Your task to perform on an android device: turn on javascript in the chrome app Image 0: 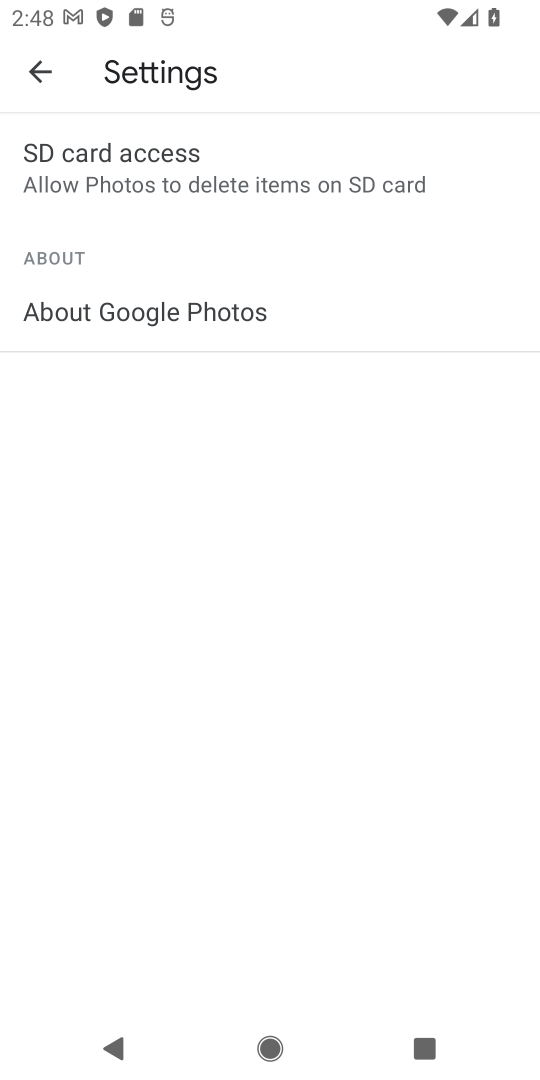
Step 0: press home button
Your task to perform on an android device: turn on javascript in the chrome app Image 1: 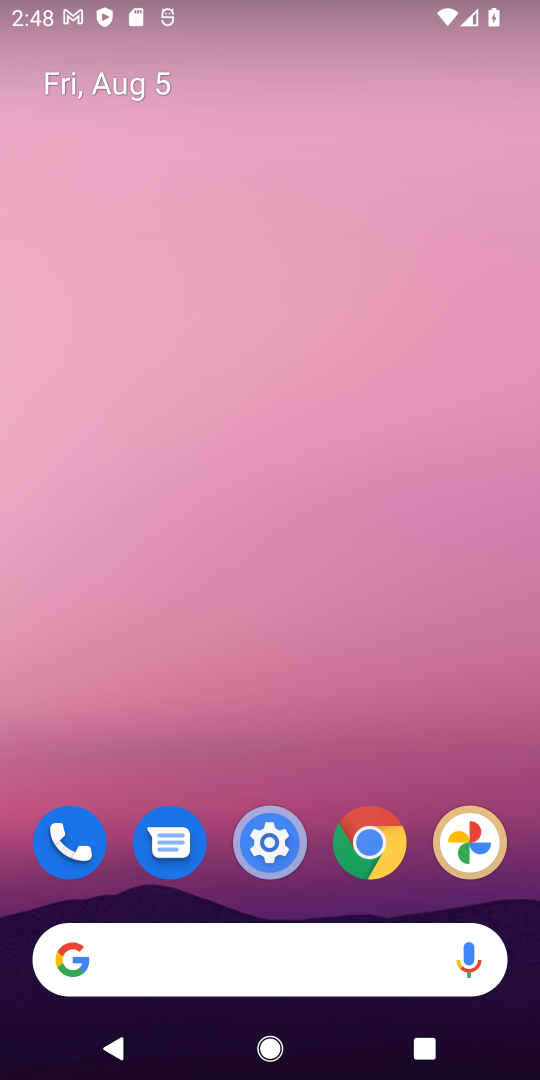
Step 1: click (277, 843)
Your task to perform on an android device: turn on javascript in the chrome app Image 2: 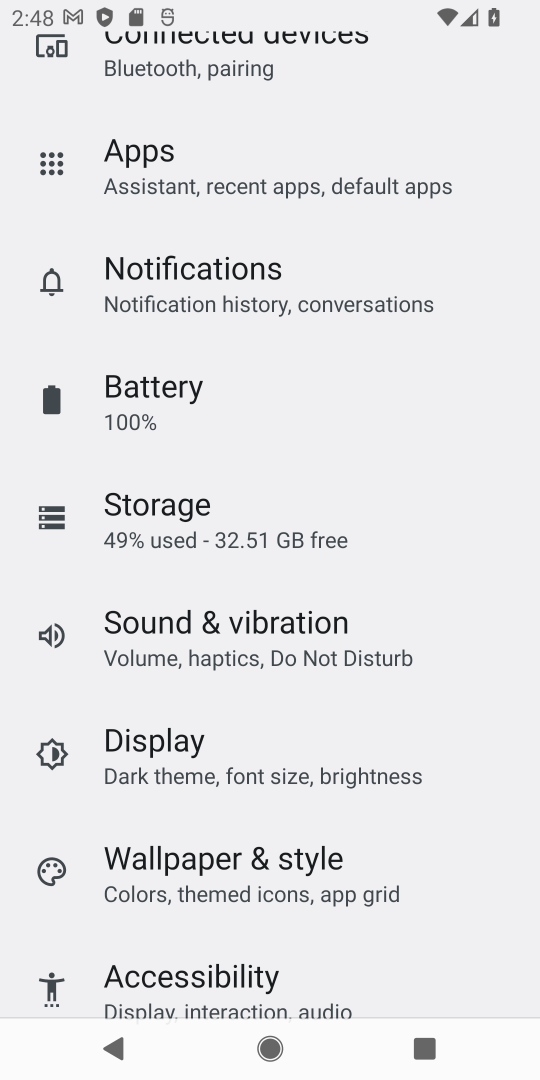
Step 2: press home button
Your task to perform on an android device: turn on javascript in the chrome app Image 3: 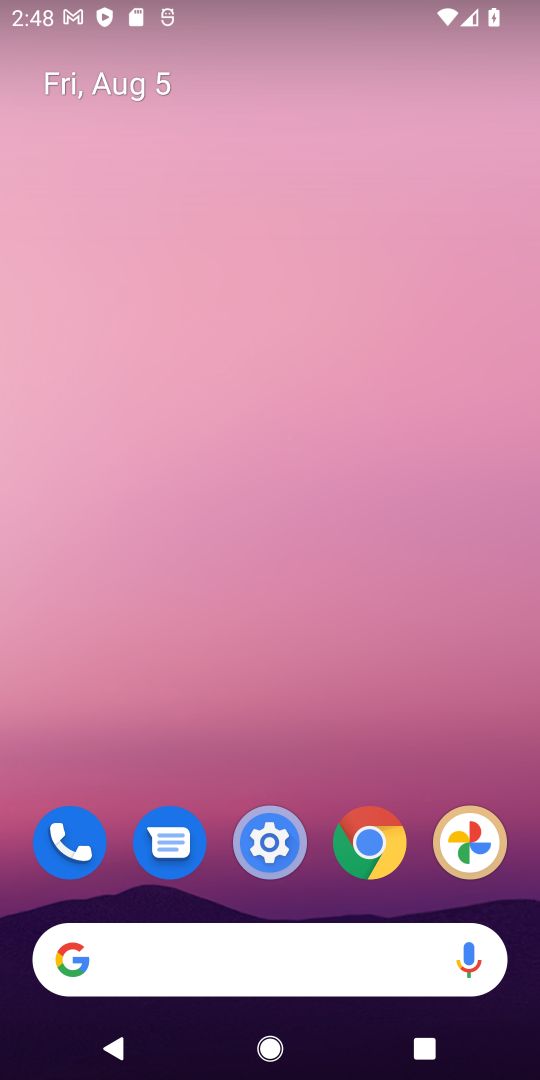
Step 3: click (374, 841)
Your task to perform on an android device: turn on javascript in the chrome app Image 4: 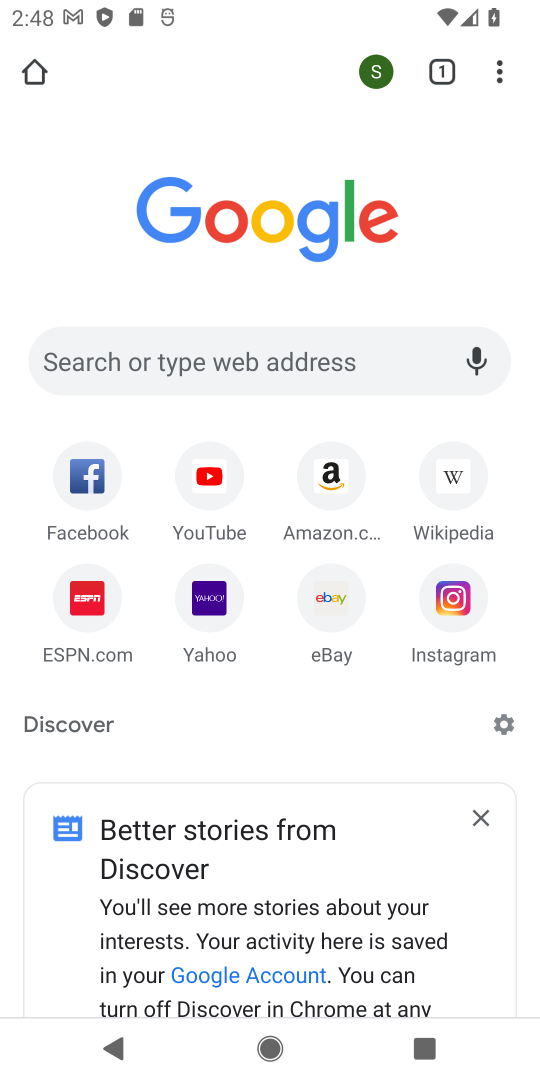
Step 4: click (501, 77)
Your task to perform on an android device: turn on javascript in the chrome app Image 5: 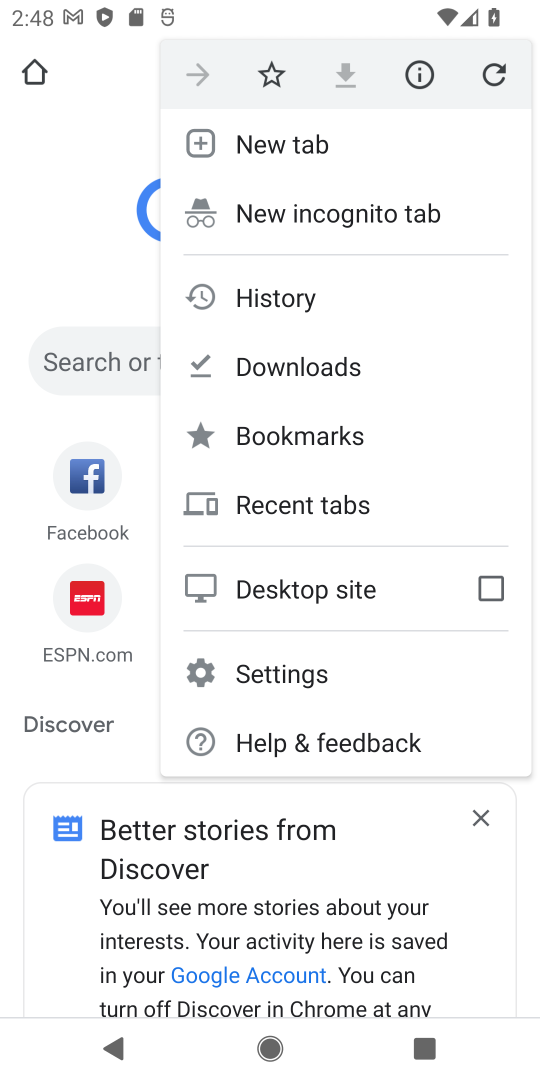
Step 5: click (300, 667)
Your task to perform on an android device: turn on javascript in the chrome app Image 6: 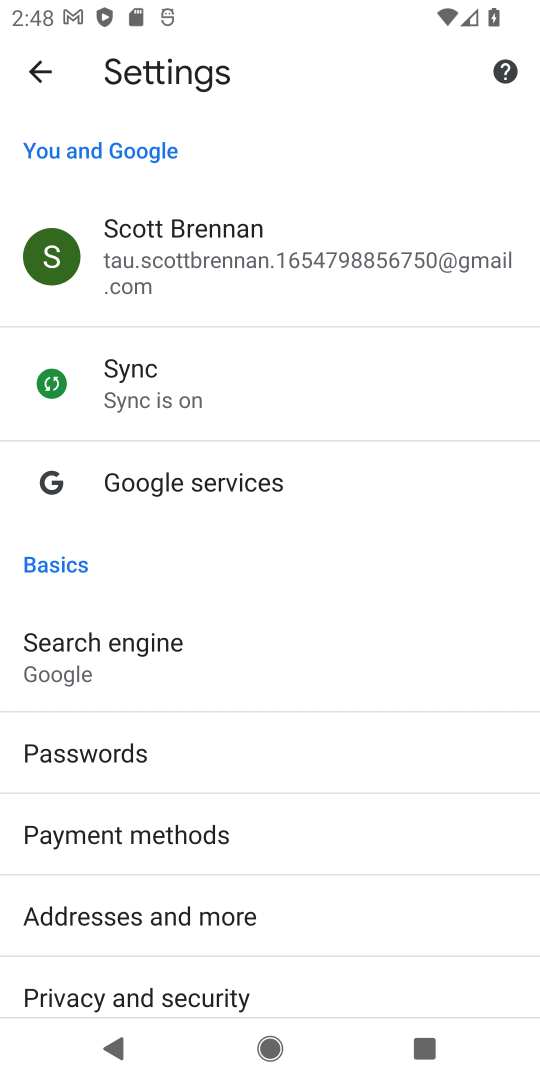
Step 6: drag from (330, 741) to (320, 169)
Your task to perform on an android device: turn on javascript in the chrome app Image 7: 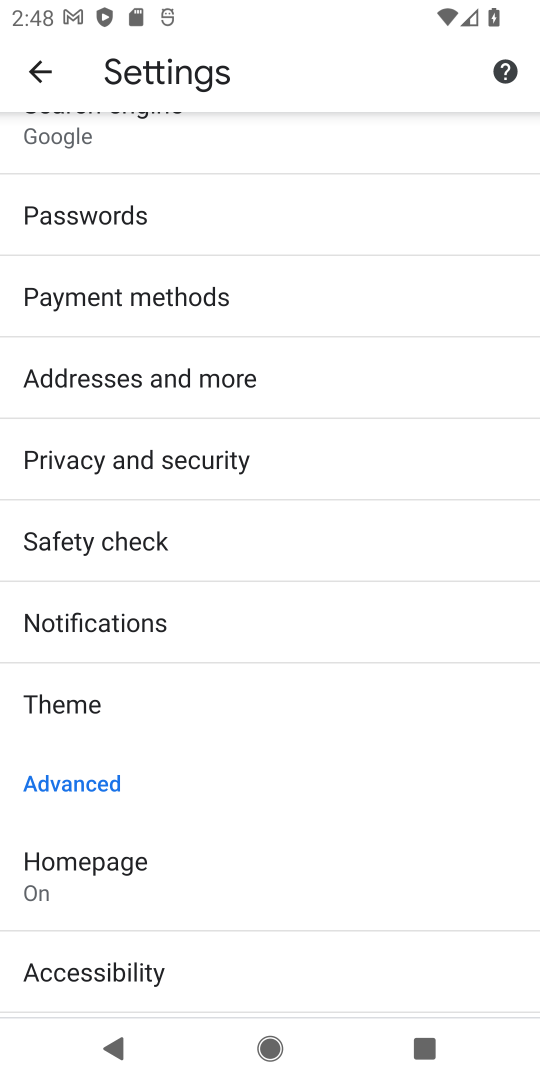
Step 7: drag from (277, 748) to (237, 210)
Your task to perform on an android device: turn on javascript in the chrome app Image 8: 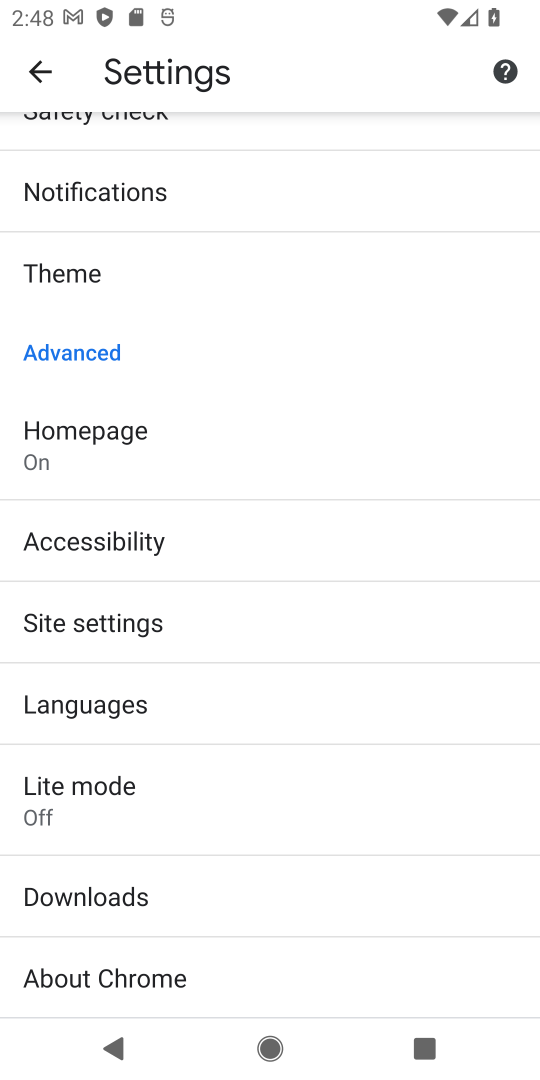
Step 8: click (160, 620)
Your task to perform on an android device: turn on javascript in the chrome app Image 9: 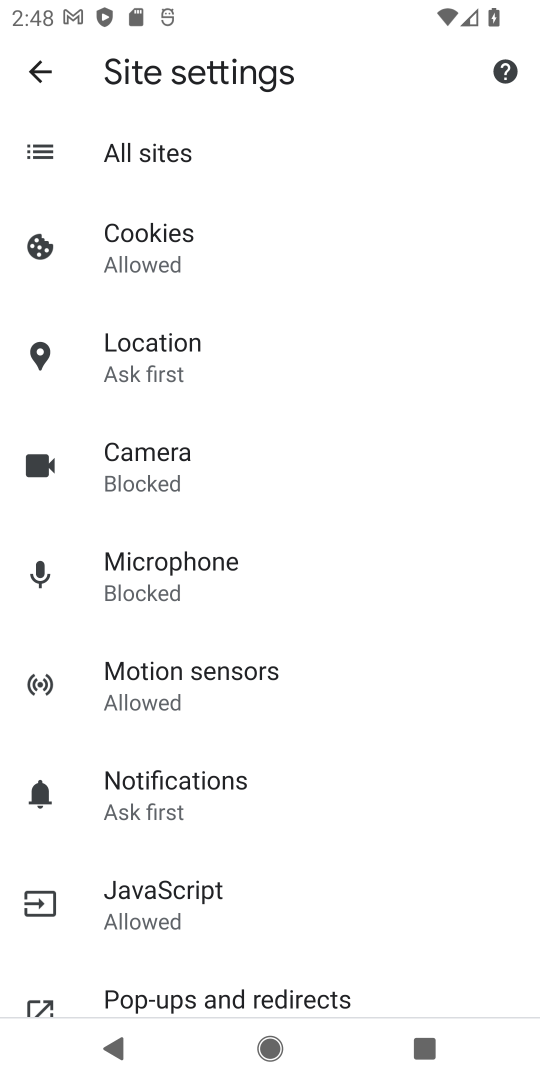
Step 9: click (178, 904)
Your task to perform on an android device: turn on javascript in the chrome app Image 10: 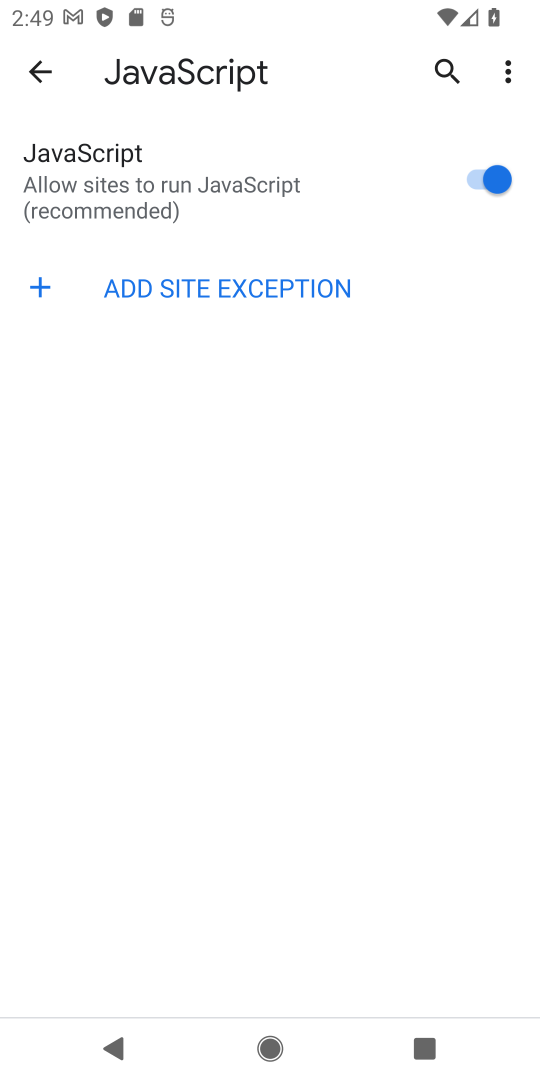
Step 10: task complete